Your task to perform on an android device: Open battery settings Image 0: 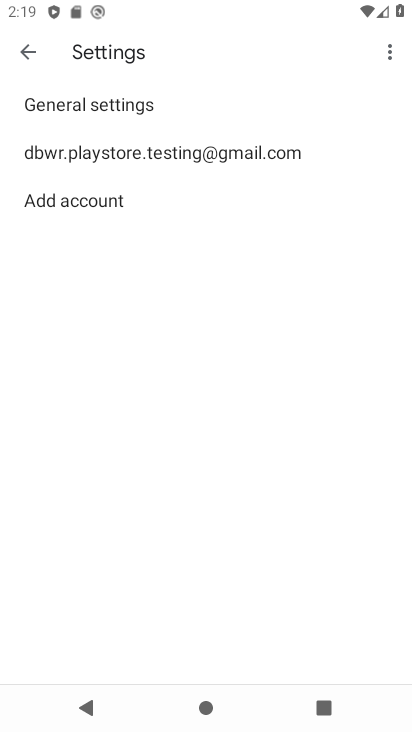
Step 0: press home button
Your task to perform on an android device: Open battery settings Image 1: 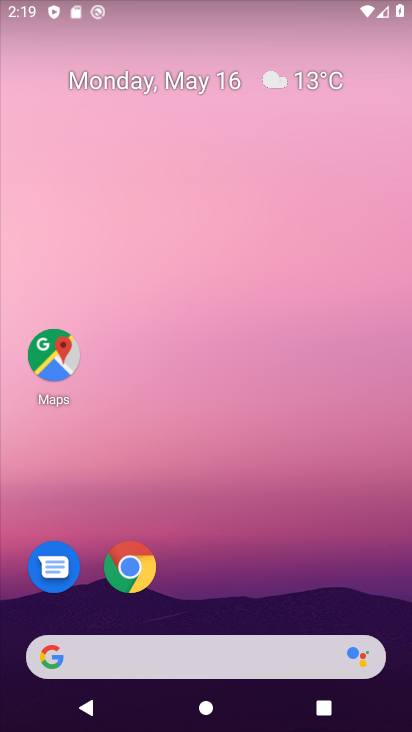
Step 1: drag from (325, 579) to (294, 92)
Your task to perform on an android device: Open battery settings Image 2: 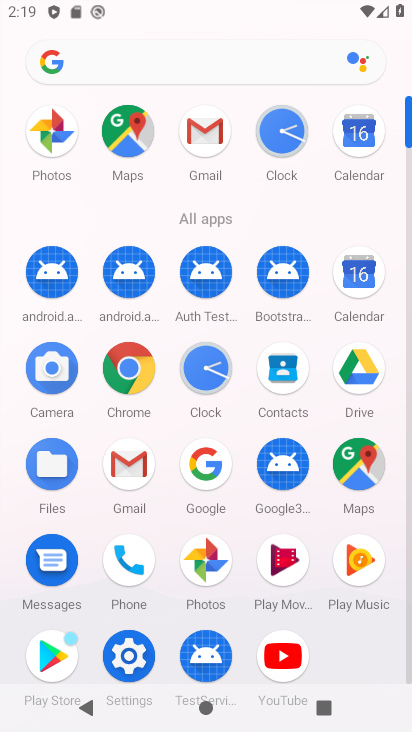
Step 2: click (136, 655)
Your task to perform on an android device: Open battery settings Image 3: 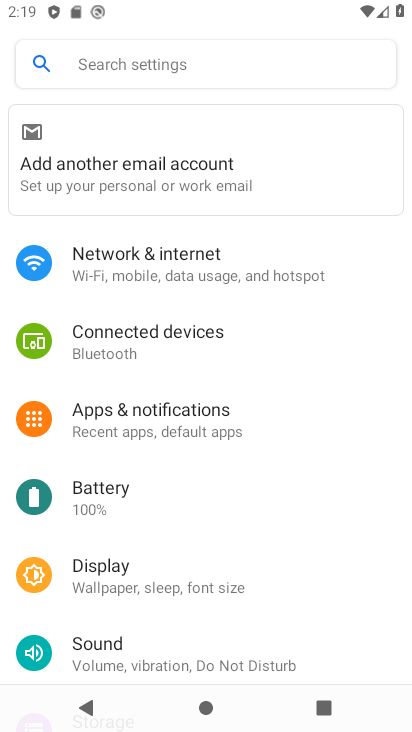
Step 3: click (101, 490)
Your task to perform on an android device: Open battery settings Image 4: 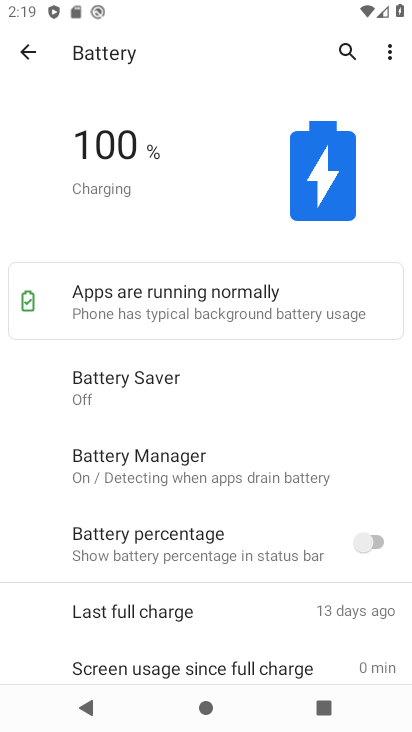
Step 4: task complete